Your task to perform on an android device: add a contact Image 0: 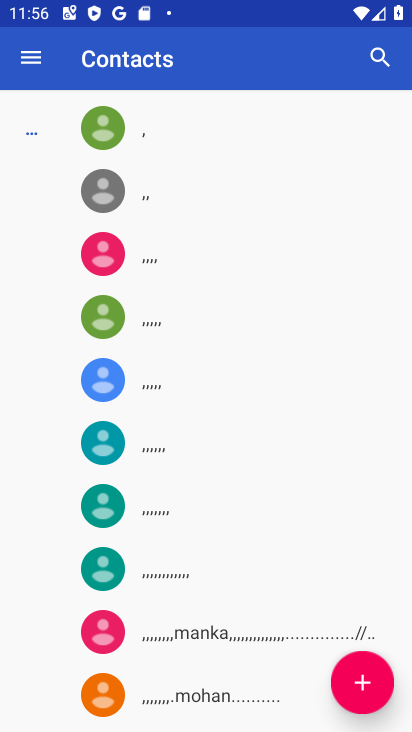
Step 0: click (368, 689)
Your task to perform on an android device: add a contact Image 1: 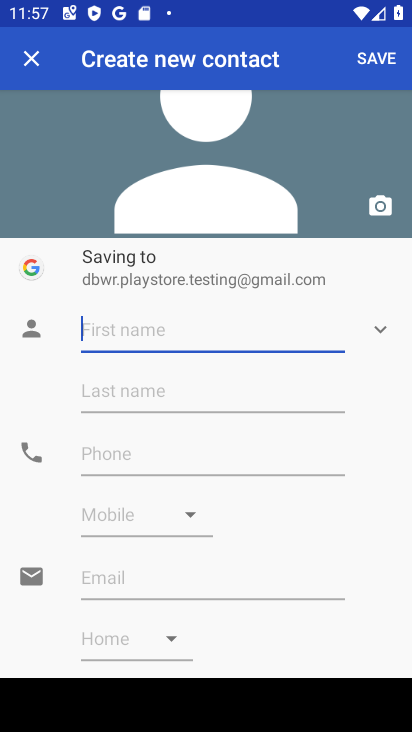
Step 1: type "vjhgc"
Your task to perform on an android device: add a contact Image 2: 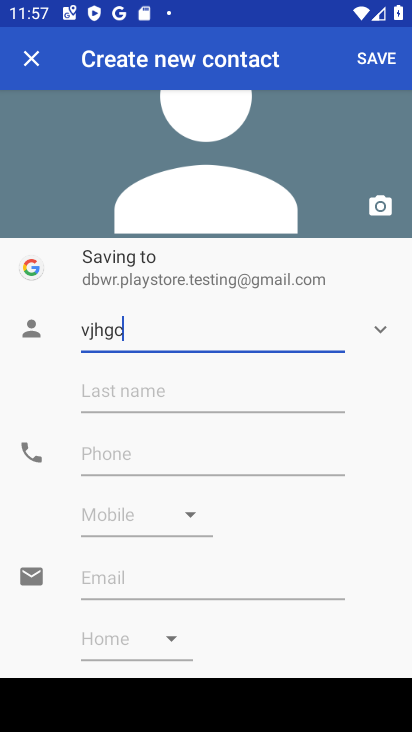
Step 2: click (142, 466)
Your task to perform on an android device: add a contact Image 3: 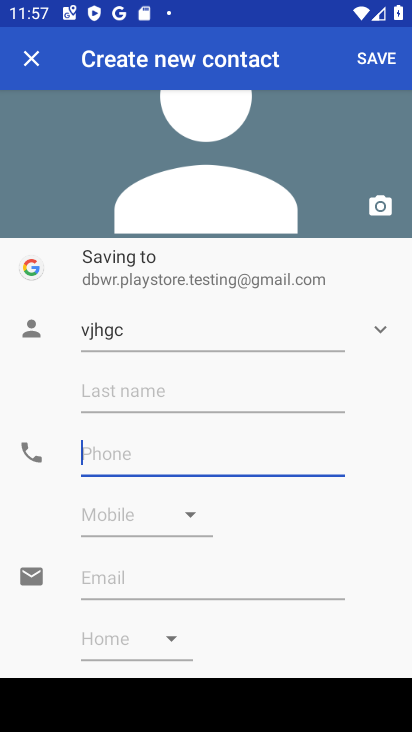
Step 3: type "8879809"
Your task to perform on an android device: add a contact Image 4: 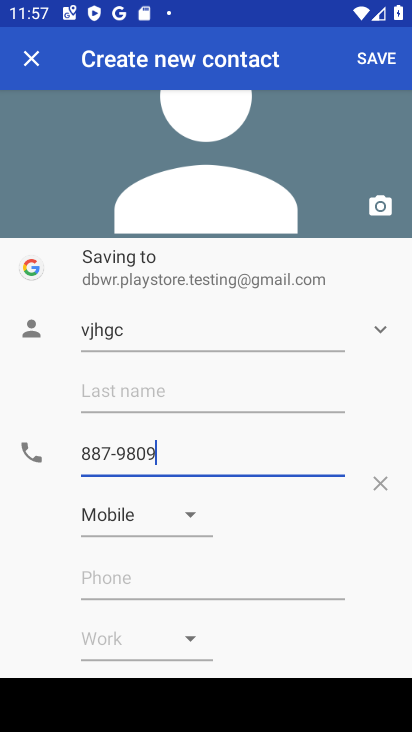
Step 4: click (375, 58)
Your task to perform on an android device: add a contact Image 5: 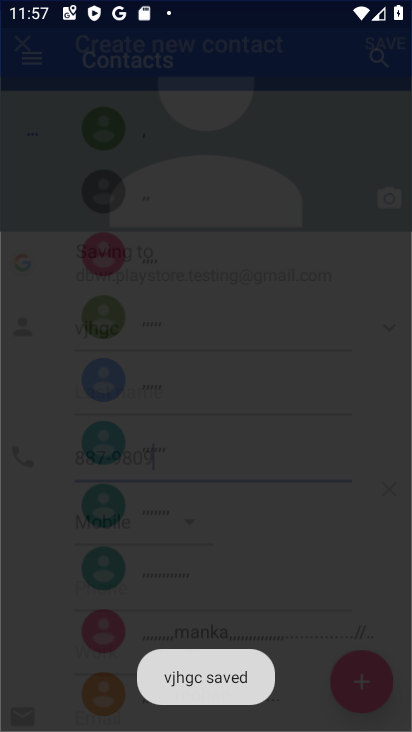
Step 5: task complete